Your task to perform on an android device: Turn on the flashlight Image 0: 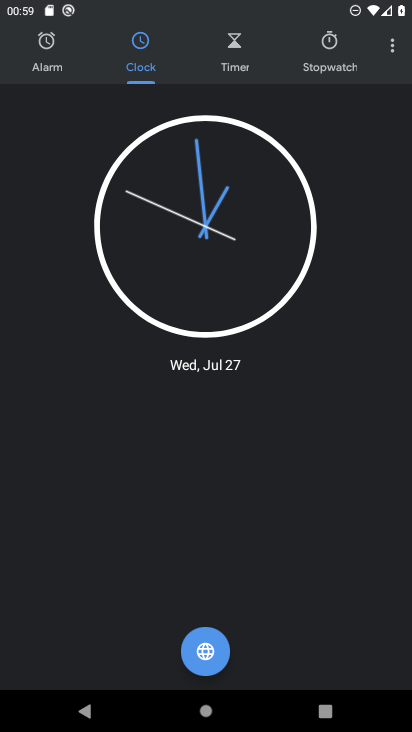
Step 0: press home button
Your task to perform on an android device: Turn on the flashlight Image 1: 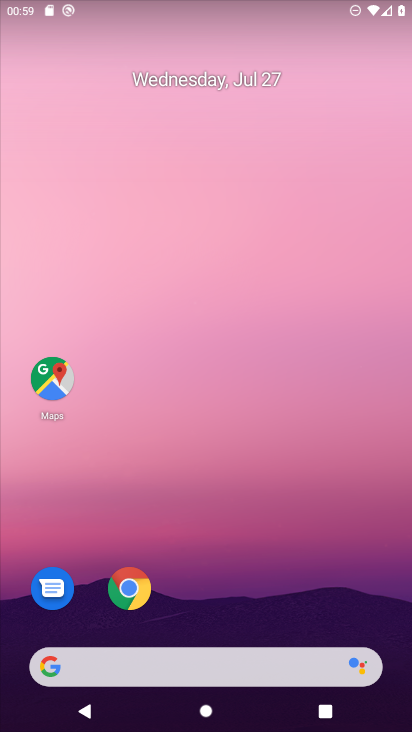
Step 1: drag from (48, 696) to (220, 250)
Your task to perform on an android device: Turn on the flashlight Image 2: 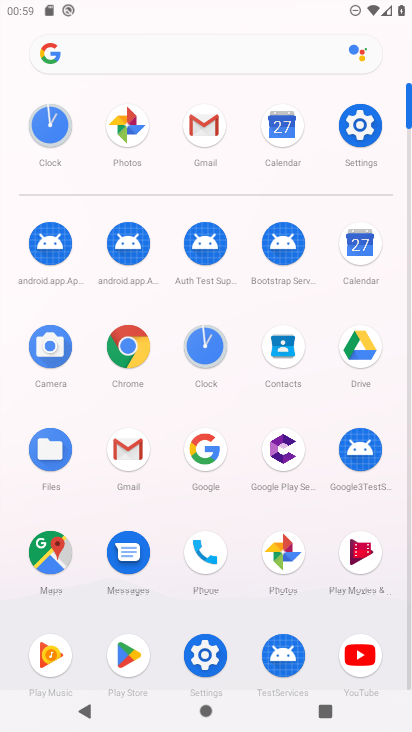
Step 2: click (201, 666)
Your task to perform on an android device: Turn on the flashlight Image 3: 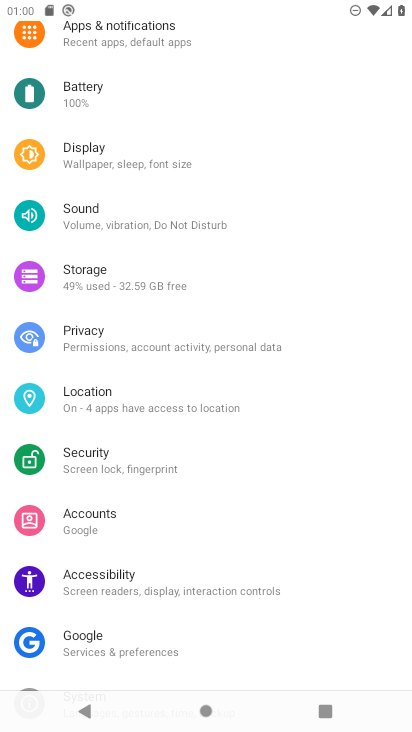
Step 3: click (134, 142)
Your task to perform on an android device: Turn on the flashlight Image 4: 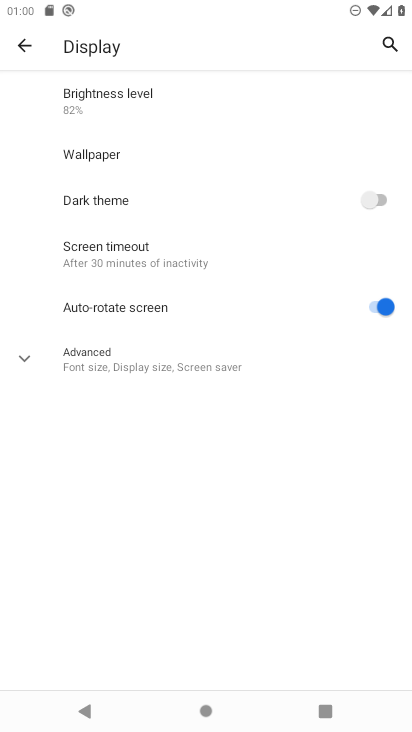
Step 4: task complete